Your task to perform on an android device: Clear the cart on walmart. Add "beats solo 3" to the cart on walmart Image 0: 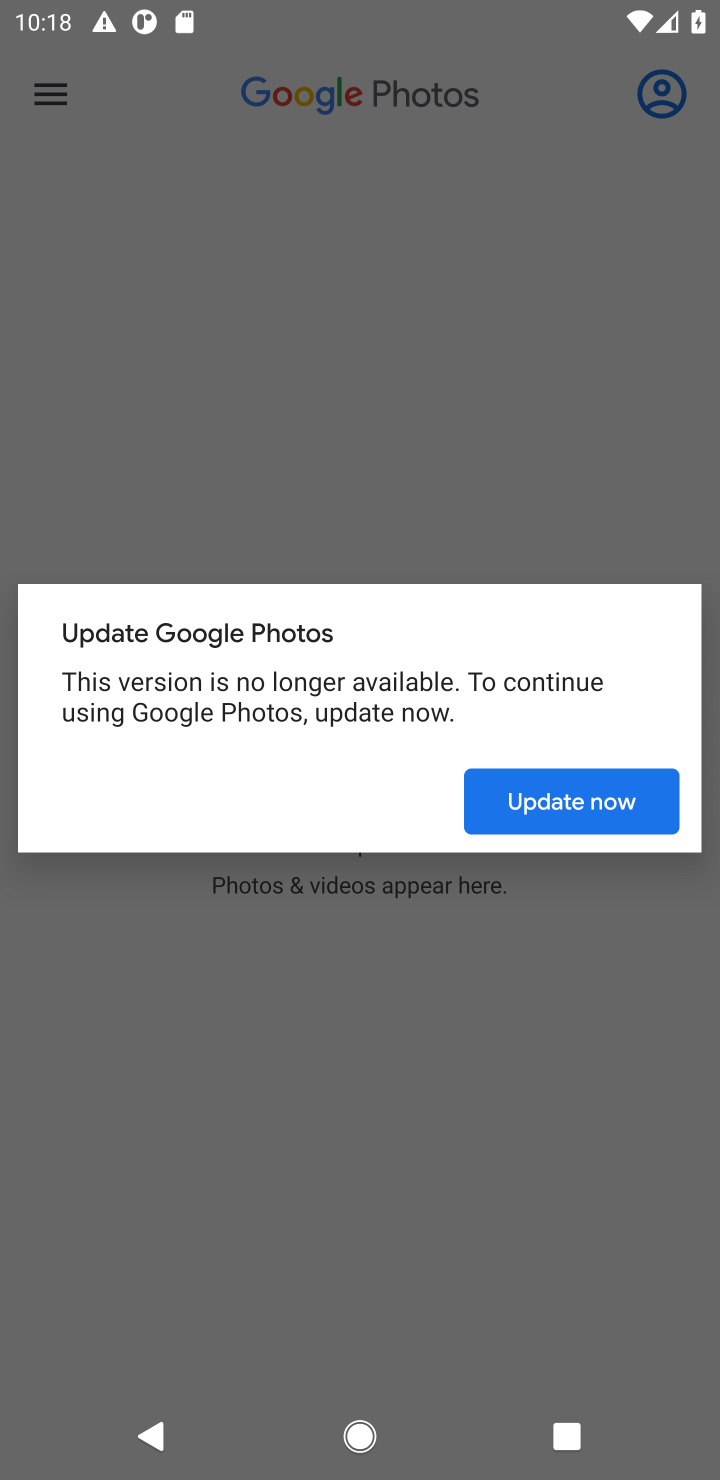
Step 0: press home button
Your task to perform on an android device: Clear the cart on walmart. Add "beats solo 3" to the cart on walmart Image 1: 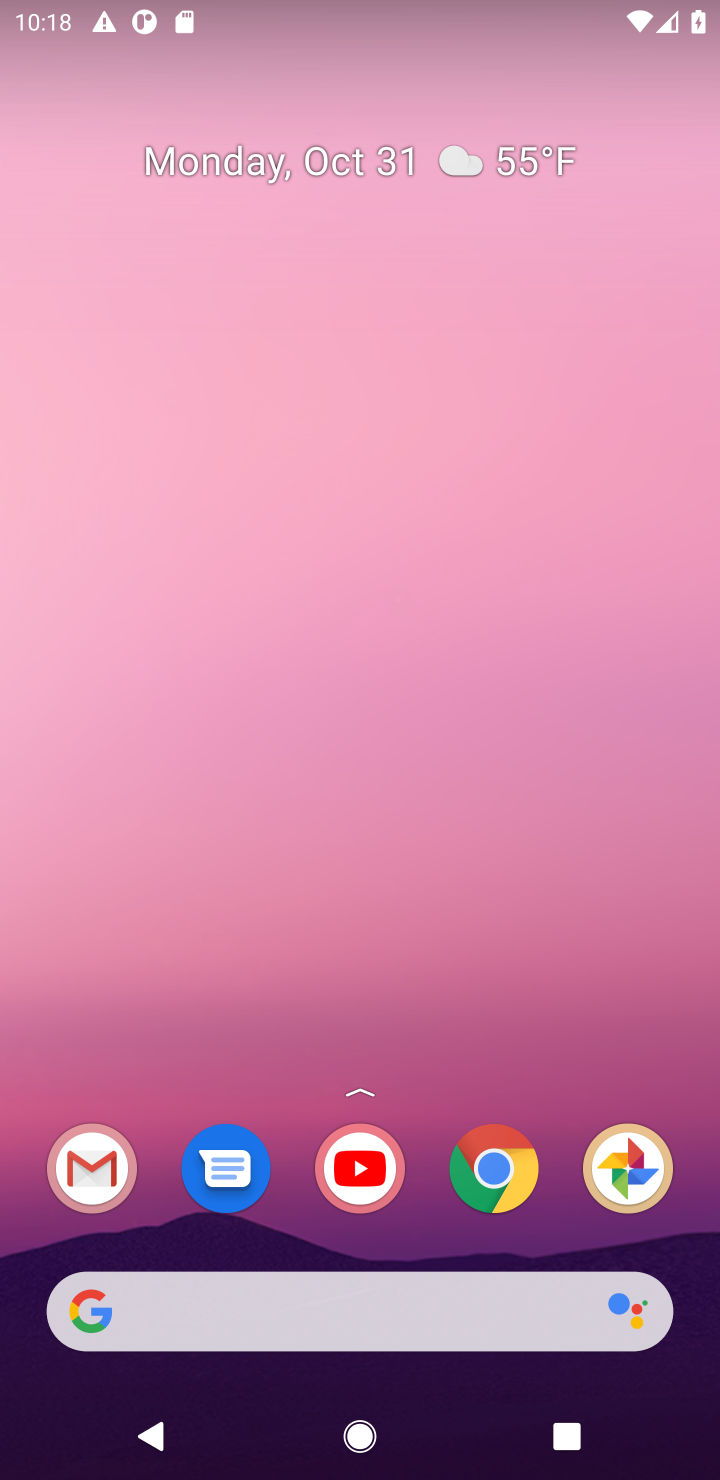
Step 1: click (486, 1170)
Your task to perform on an android device: Clear the cart on walmart. Add "beats solo 3" to the cart on walmart Image 2: 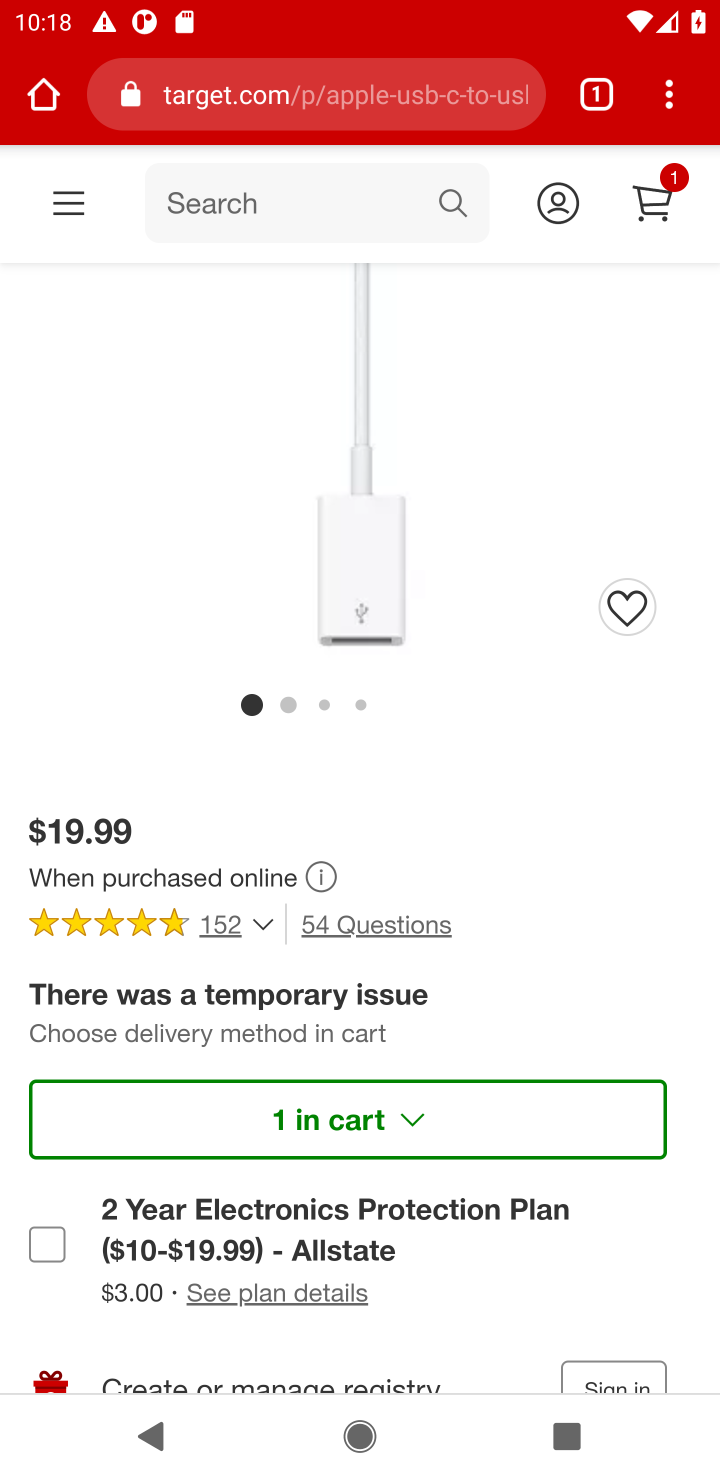
Step 2: click (338, 114)
Your task to perform on an android device: Clear the cart on walmart. Add "beats solo 3" to the cart on walmart Image 3: 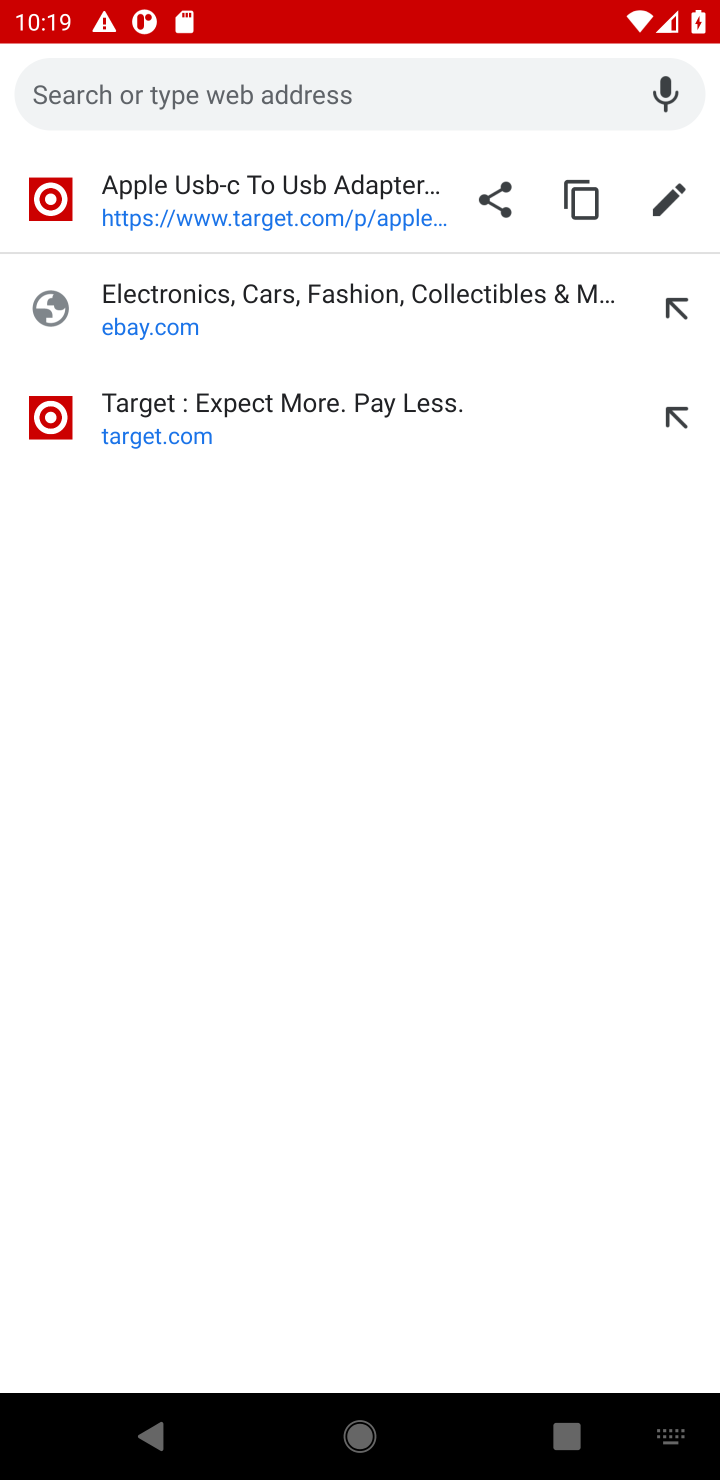
Step 3: type "walmart"
Your task to perform on an android device: Clear the cart on walmart. Add "beats solo 3" to the cart on walmart Image 4: 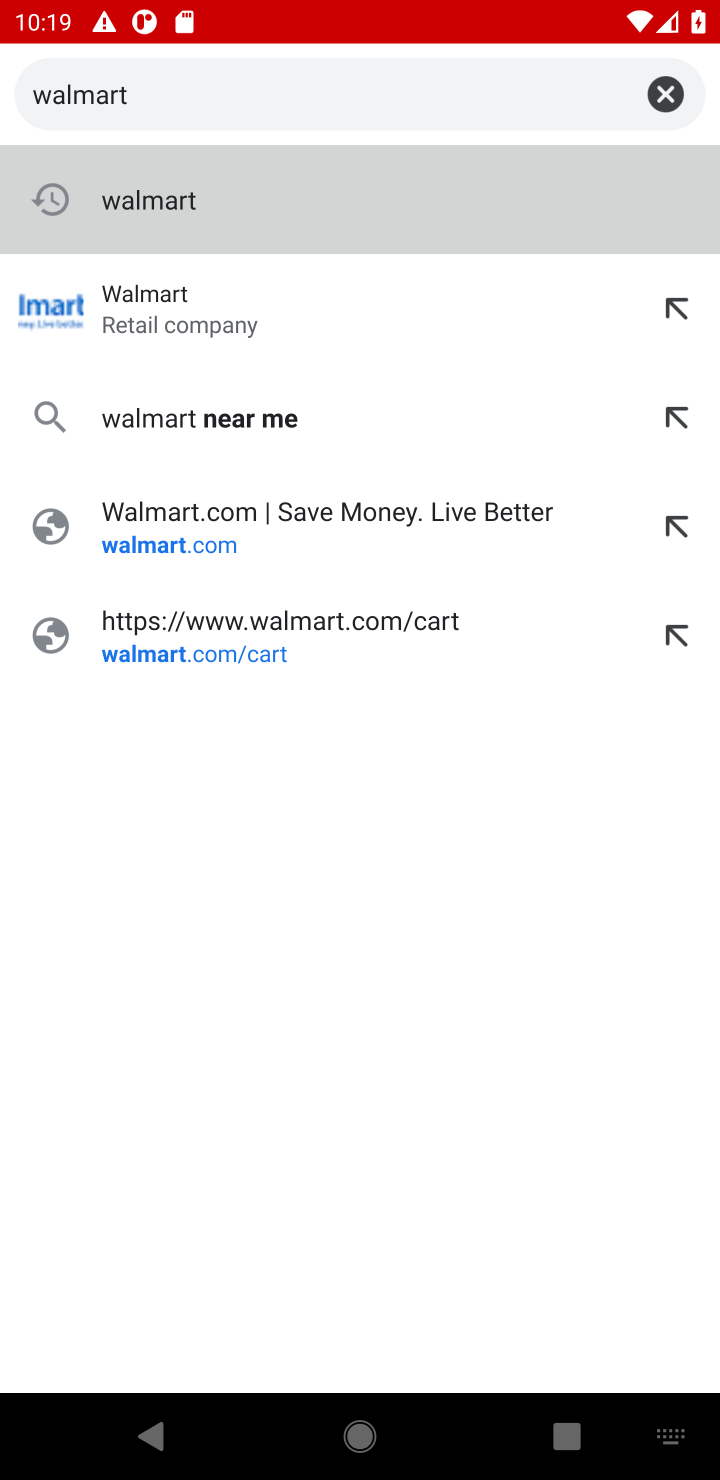
Step 4: type ""
Your task to perform on an android device: Clear the cart on walmart. Add "beats solo 3" to the cart on walmart Image 5: 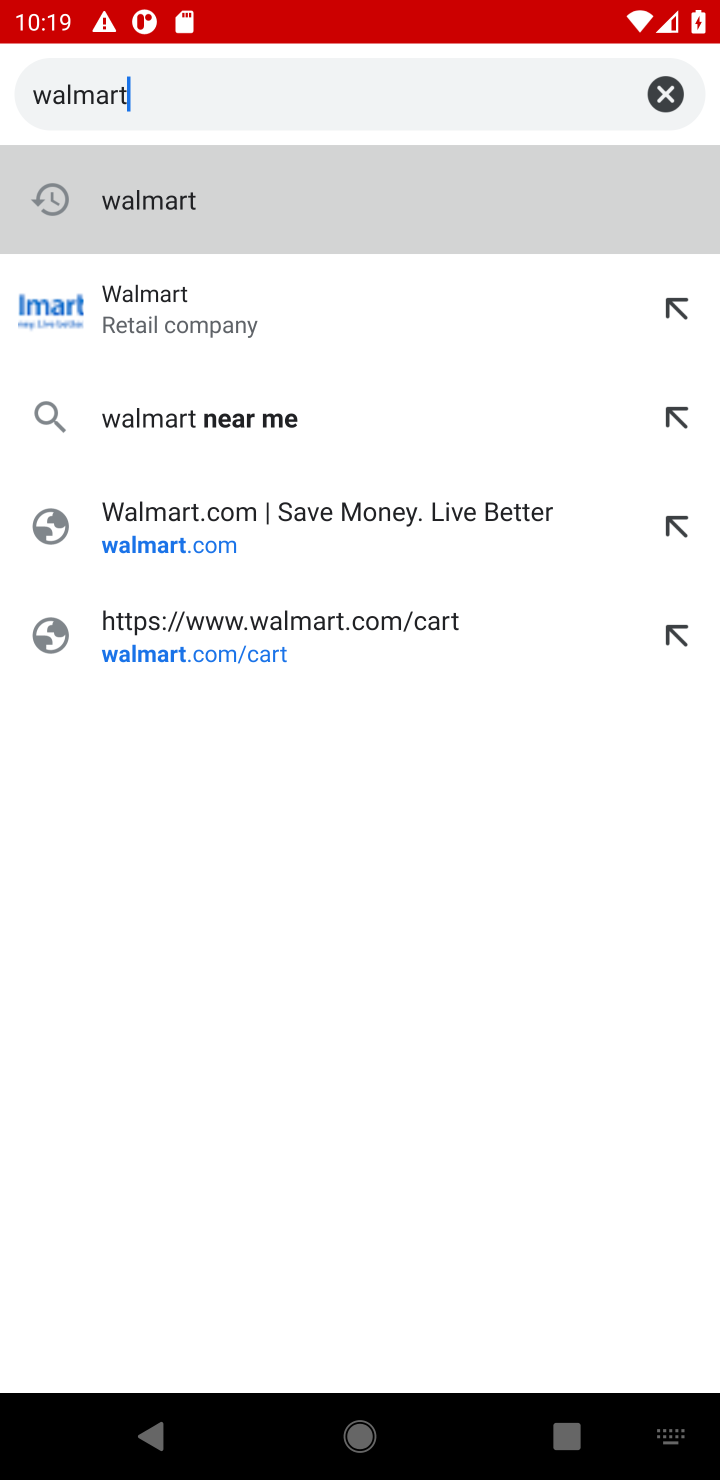
Step 5: click (142, 207)
Your task to perform on an android device: Clear the cart on walmart. Add "beats solo 3" to the cart on walmart Image 6: 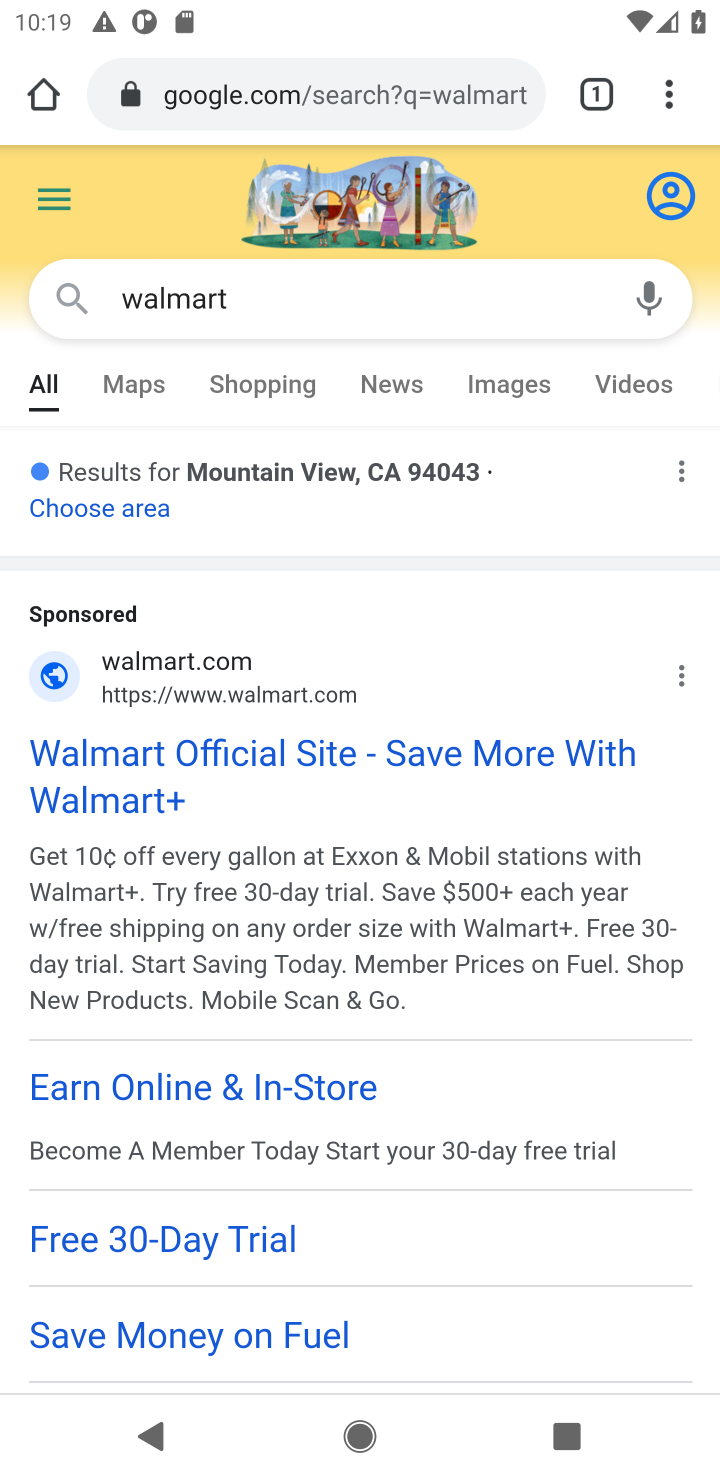
Step 6: drag from (465, 1050) to (513, 733)
Your task to perform on an android device: Clear the cart on walmart. Add "beats solo 3" to the cart on walmart Image 7: 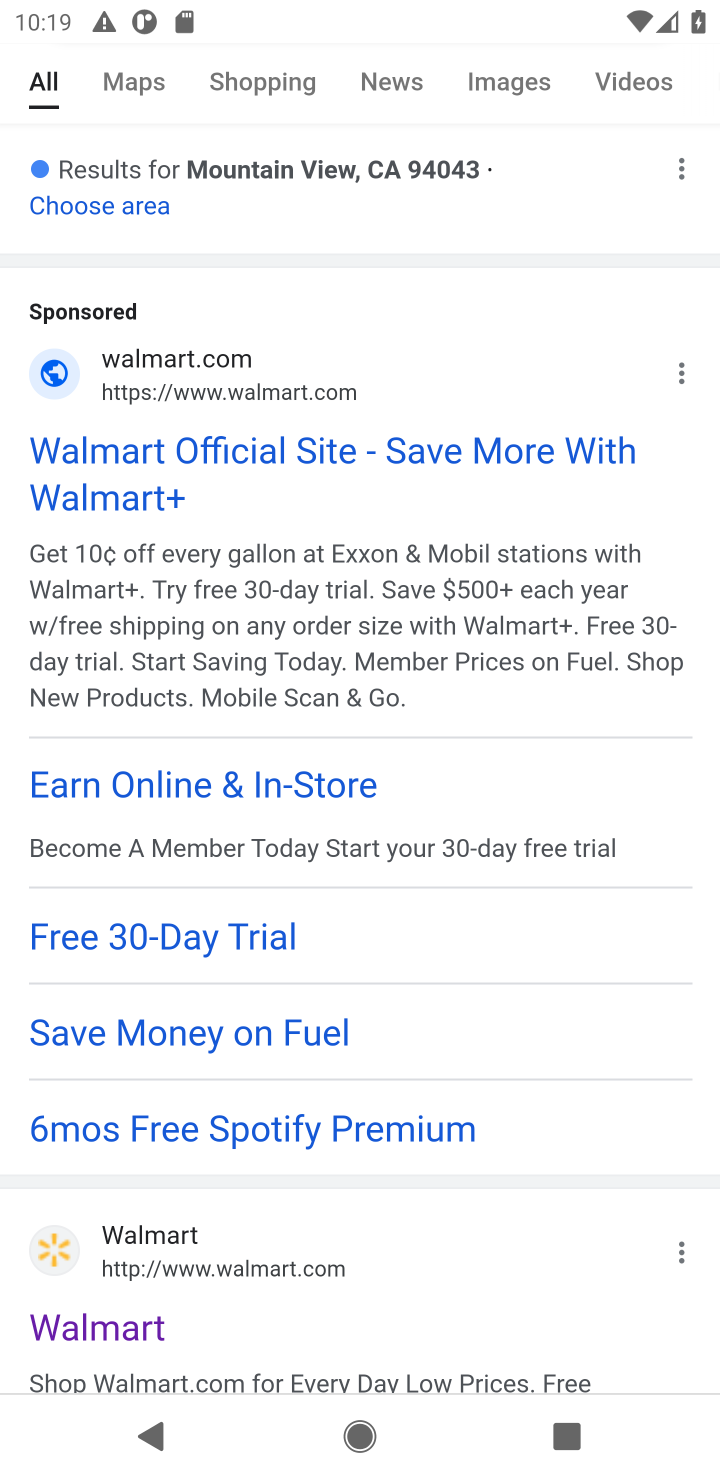
Step 7: click (100, 1328)
Your task to perform on an android device: Clear the cart on walmart. Add "beats solo 3" to the cart on walmart Image 8: 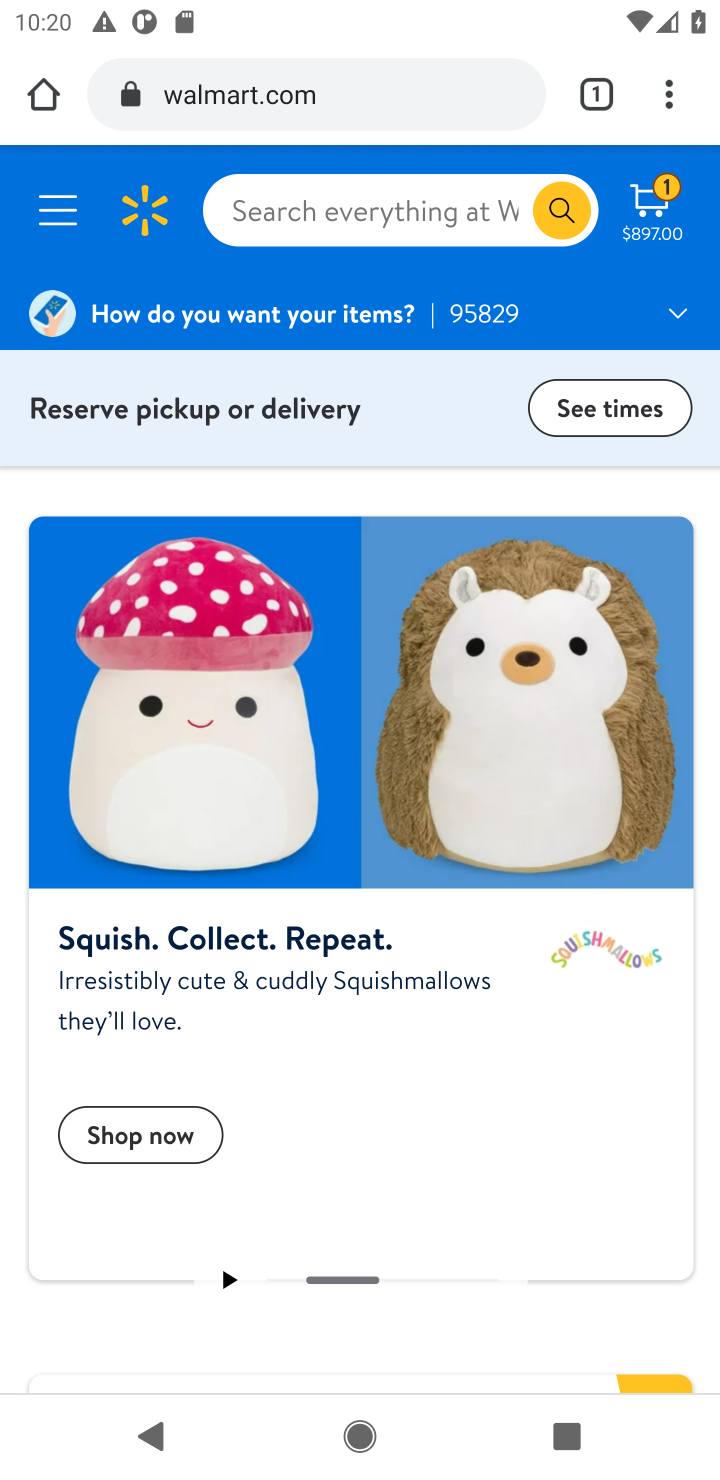
Step 8: click (666, 196)
Your task to perform on an android device: Clear the cart on walmart. Add "beats solo 3" to the cart on walmart Image 9: 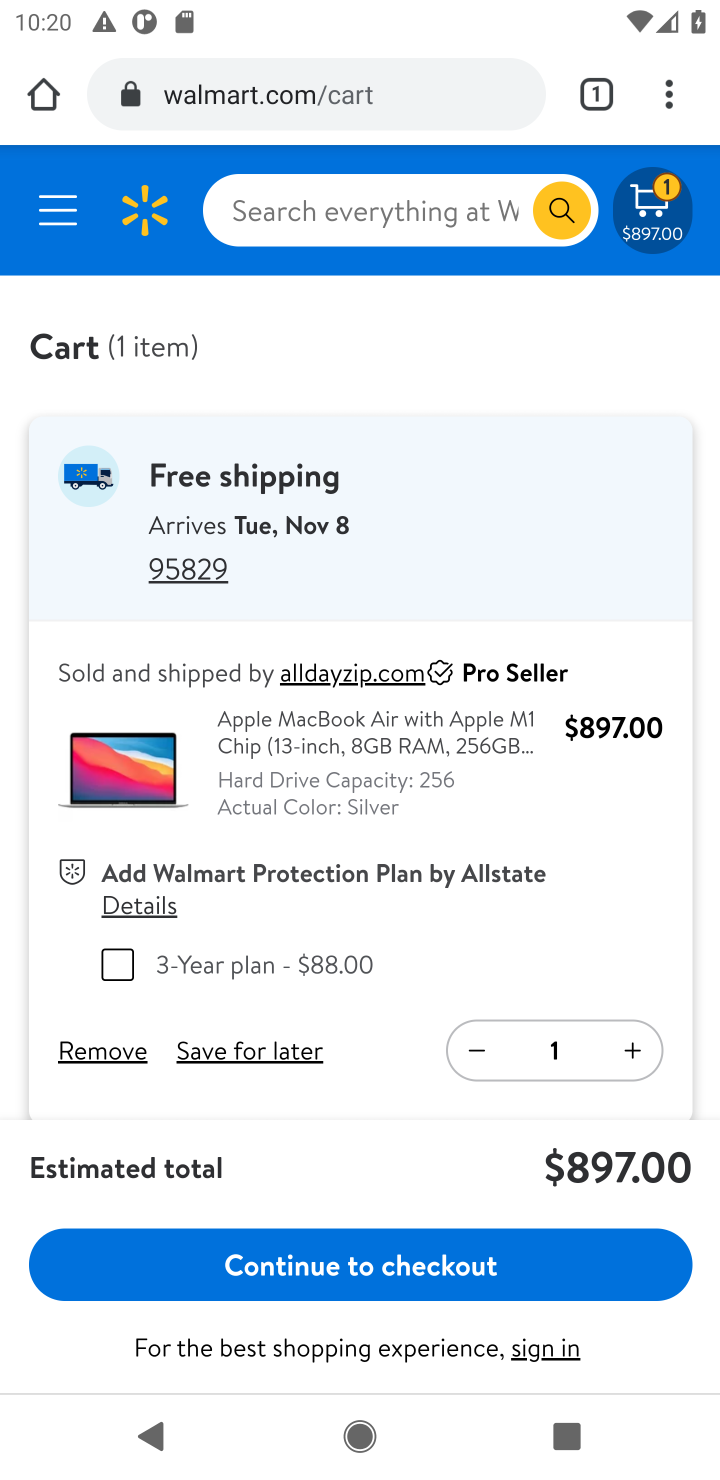
Step 9: click (94, 1054)
Your task to perform on an android device: Clear the cart on walmart. Add "beats solo 3" to the cart on walmart Image 10: 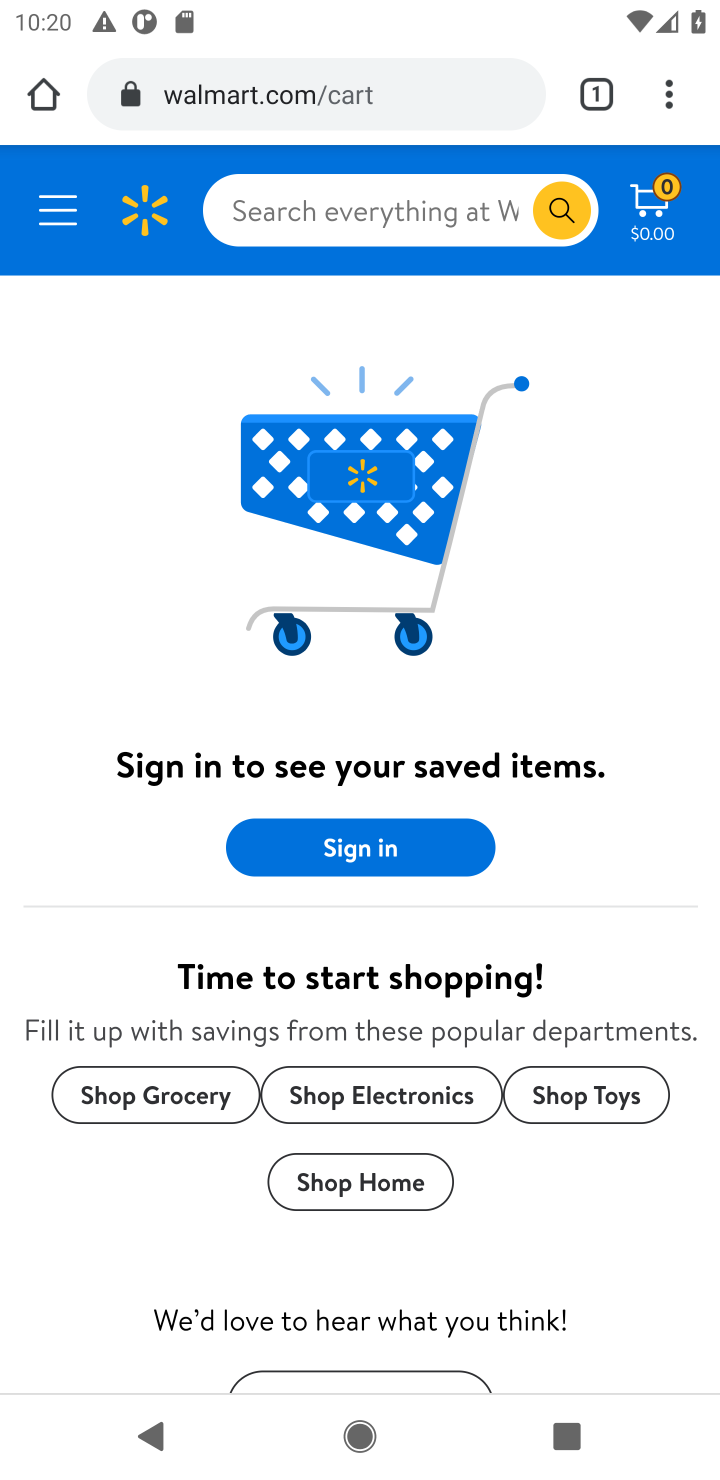
Step 10: click (370, 217)
Your task to perform on an android device: Clear the cart on walmart. Add "beats solo 3" to the cart on walmart Image 11: 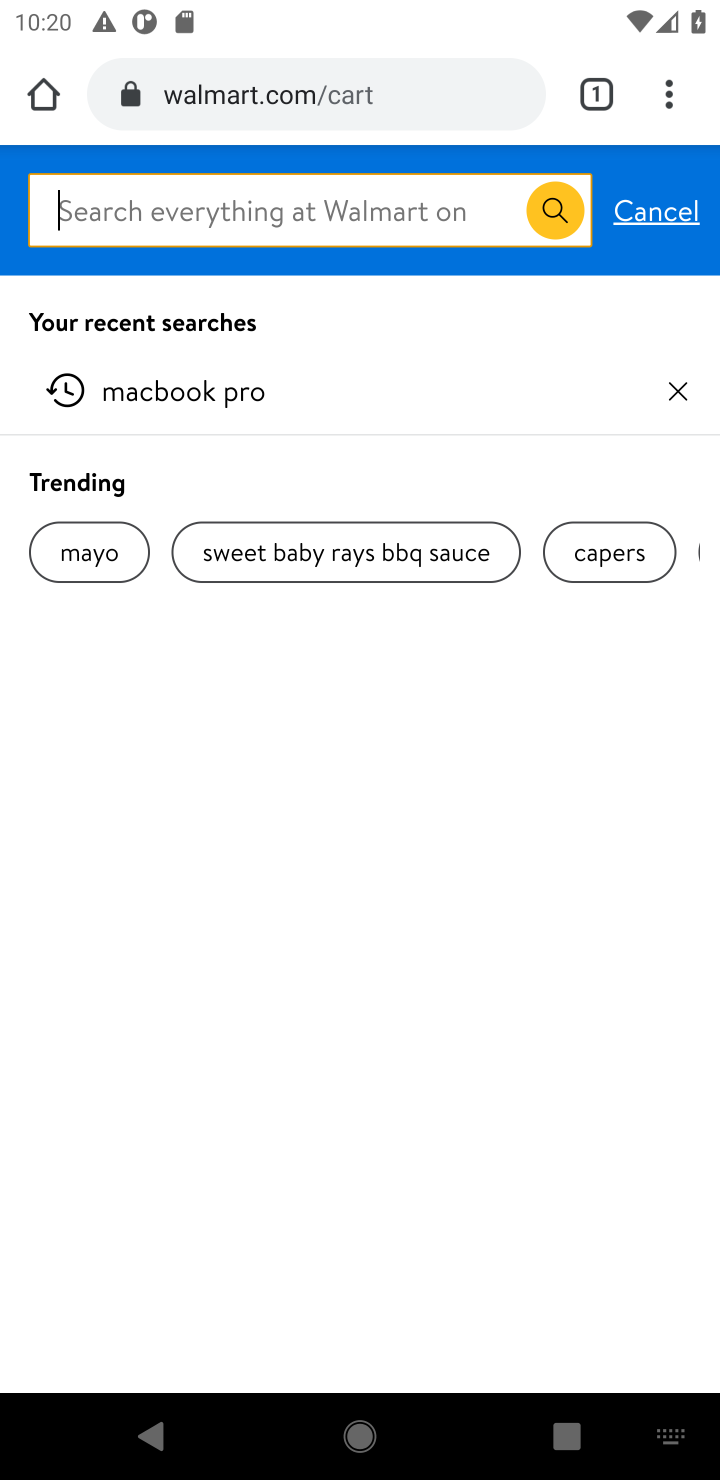
Step 11: type "beats solo 3"
Your task to perform on an android device: Clear the cart on walmart. Add "beats solo 3" to the cart on walmart Image 12: 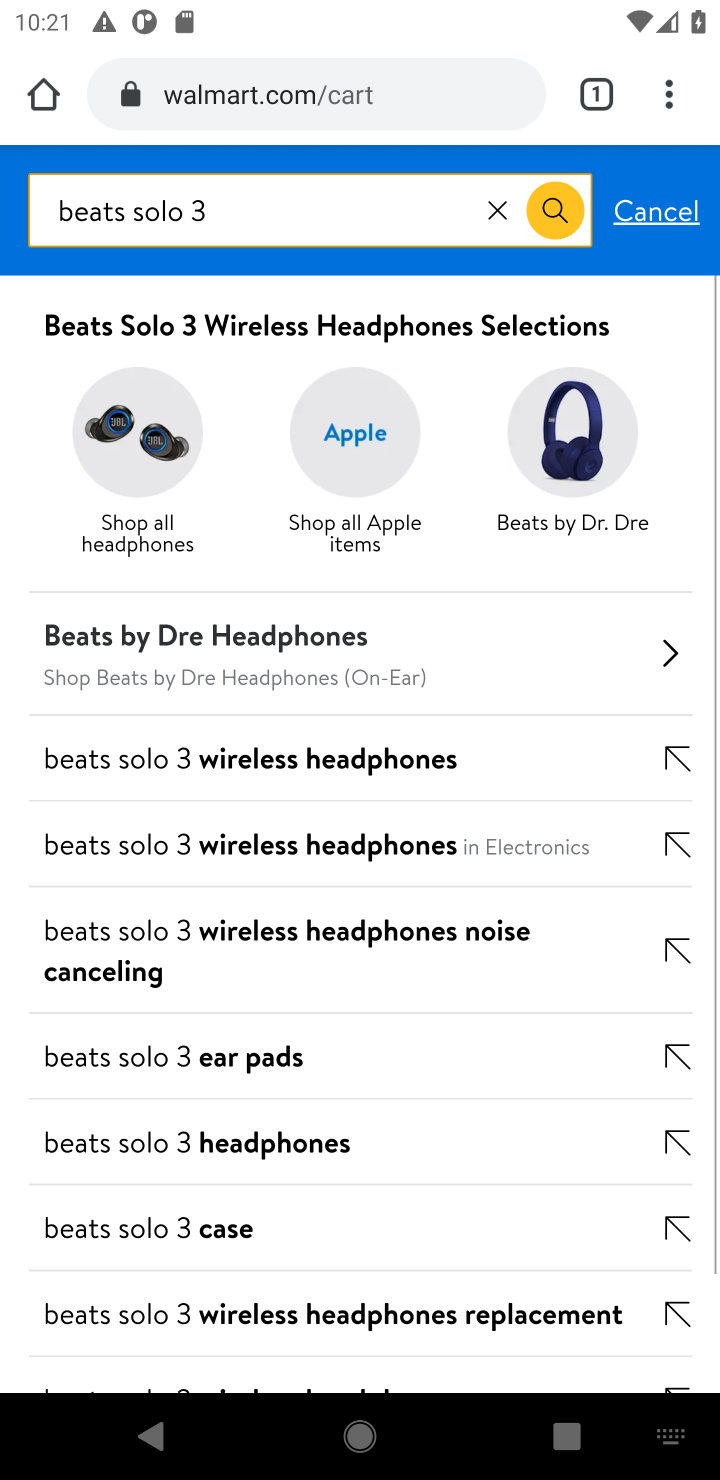
Step 12: press enter
Your task to perform on an android device: Clear the cart on walmart. Add "beats solo 3" to the cart on walmart Image 13: 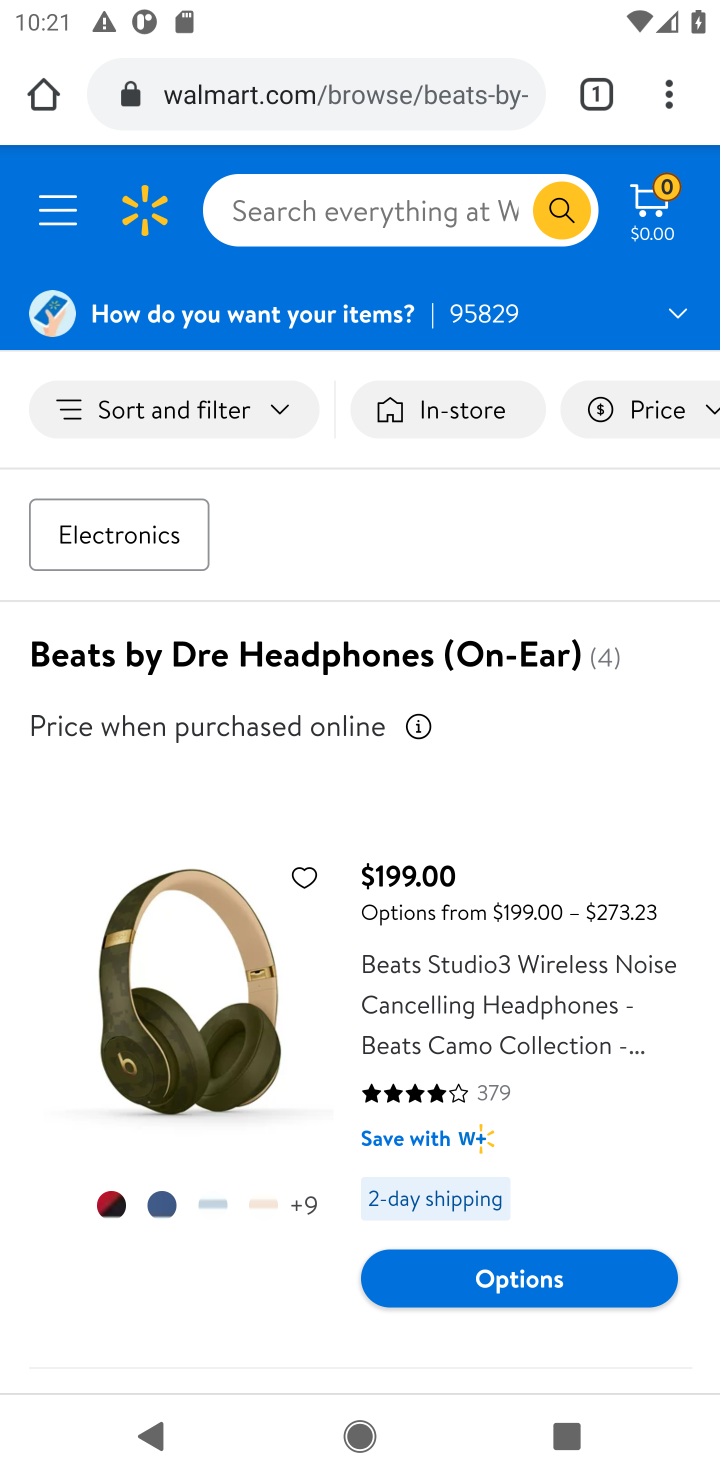
Step 13: click (244, 958)
Your task to perform on an android device: Clear the cart on walmart. Add "beats solo 3" to the cart on walmart Image 14: 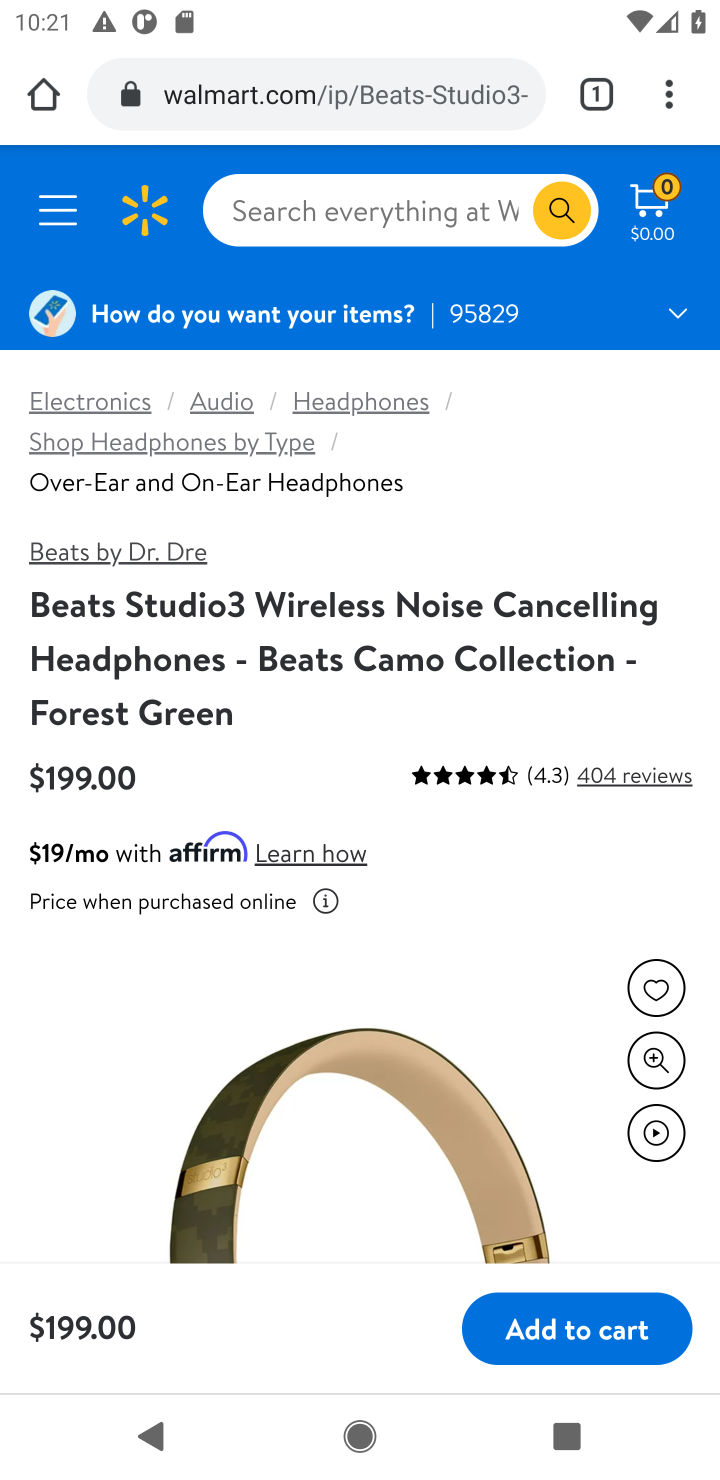
Step 14: click (543, 1337)
Your task to perform on an android device: Clear the cart on walmart. Add "beats solo 3" to the cart on walmart Image 15: 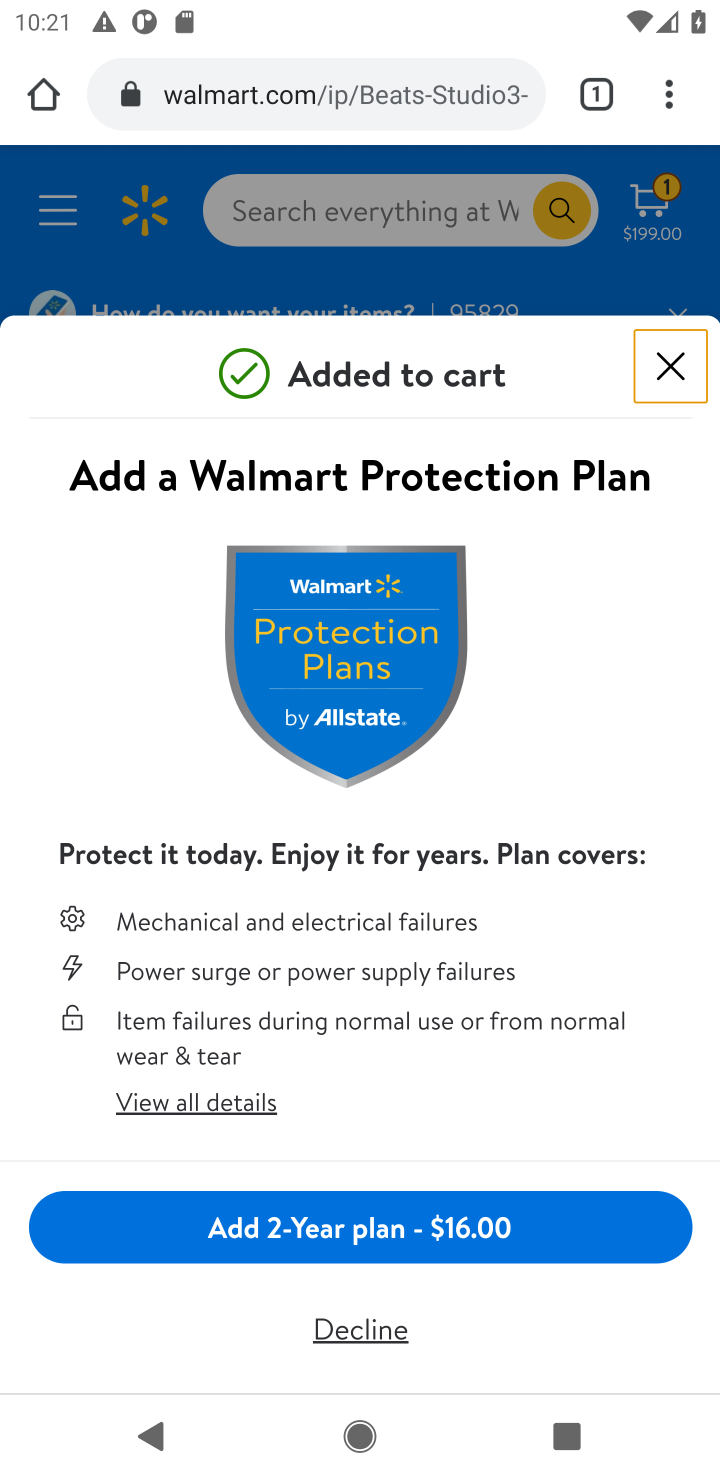
Step 15: click (663, 372)
Your task to perform on an android device: Clear the cart on walmart. Add "beats solo 3" to the cart on walmart Image 16: 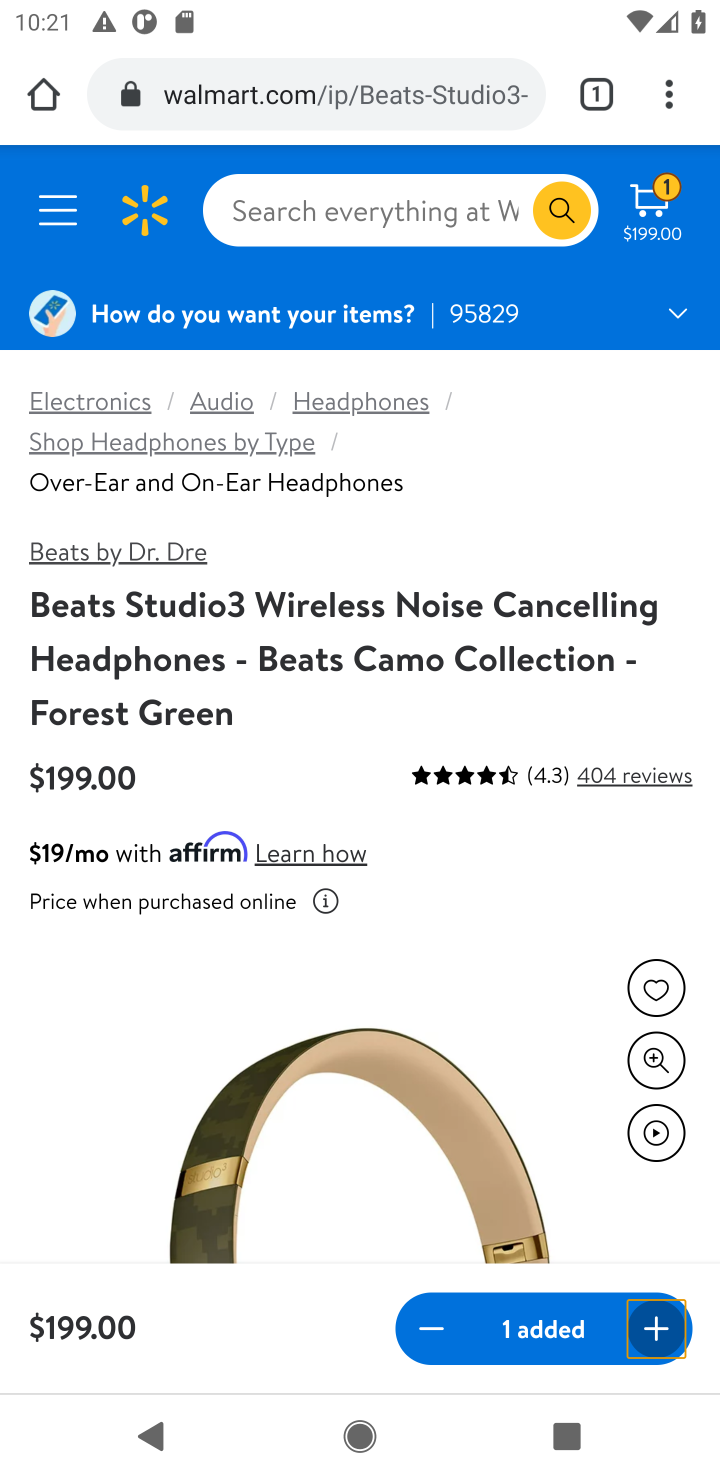
Step 16: task complete